Your task to perform on an android device: visit the assistant section in the google photos Image 0: 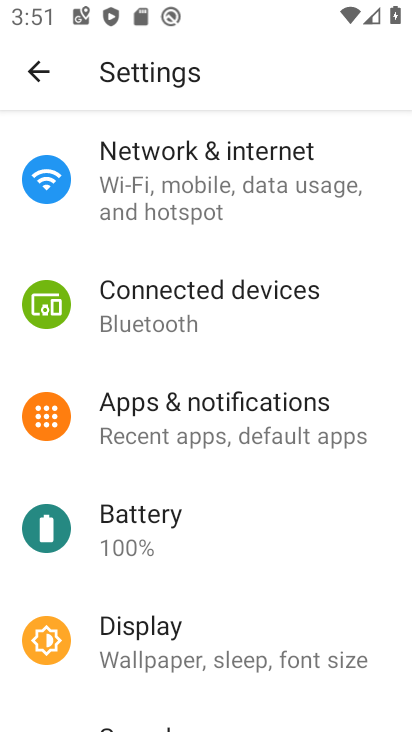
Step 0: press home button
Your task to perform on an android device: visit the assistant section in the google photos Image 1: 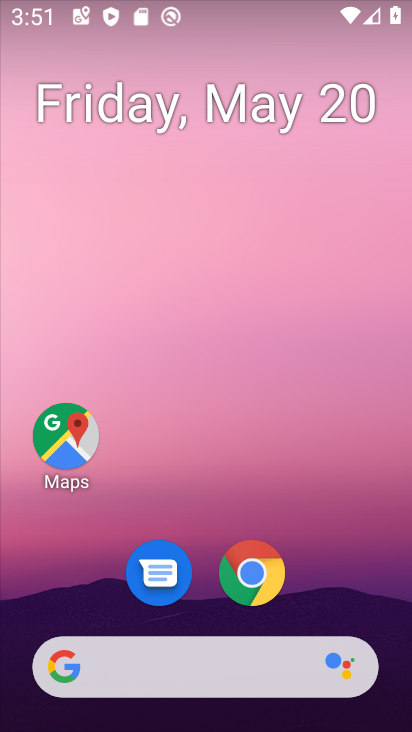
Step 1: drag from (393, 635) to (380, 79)
Your task to perform on an android device: visit the assistant section in the google photos Image 2: 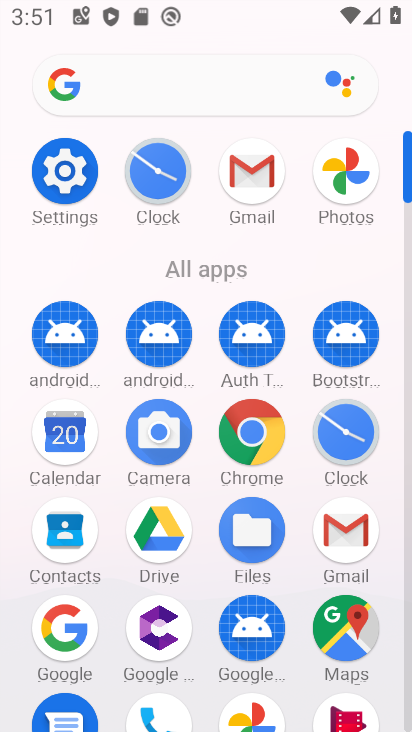
Step 2: click (407, 706)
Your task to perform on an android device: visit the assistant section in the google photos Image 3: 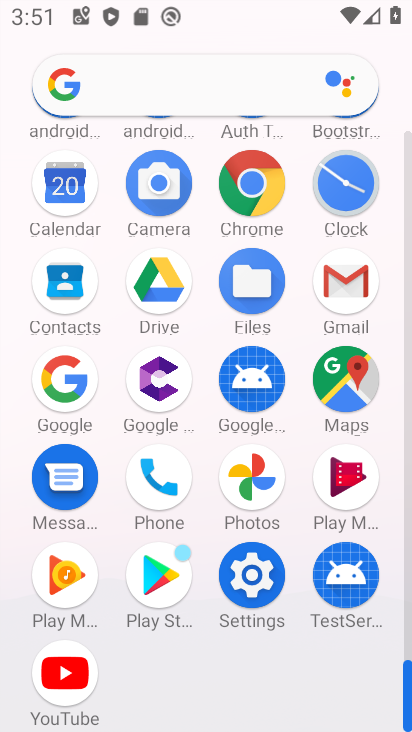
Step 3: click (250, 479)
Your task to perform on an android device: visit the assistant section in the google photos Image 4: 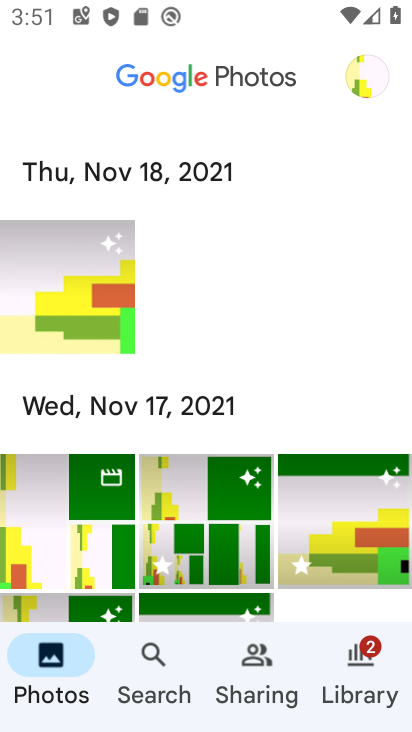
Step 4: click (360, 660)
Your task to perform on an android device: visit the assistant section in the google photos Image 5: 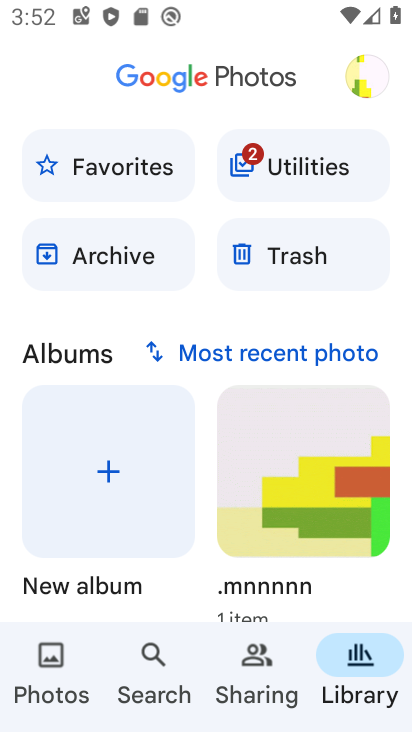
Step 5: task complete